Your task to perform on an android device: turn off notifications settings in the gmail app Image 0: 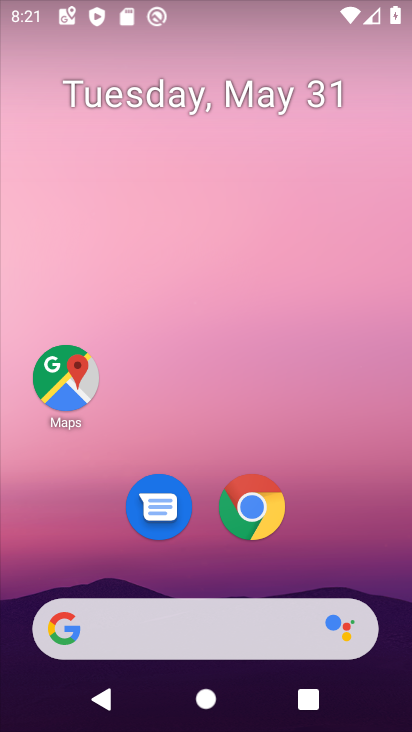
Step 0: drag from (327, 535) to (225, 189)
Your task to perform on an android device: turn off notifications settings in the gmail app Image 1: 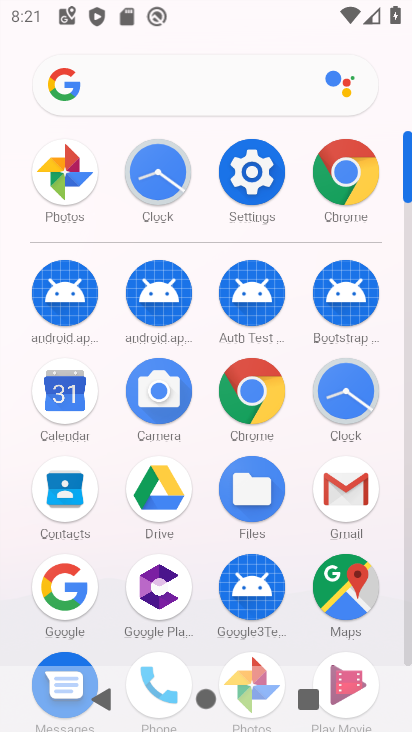
Step 1: click (357, 505)
Your task to perform on an android device: turn off notifications settings in the gmail app Image 2: 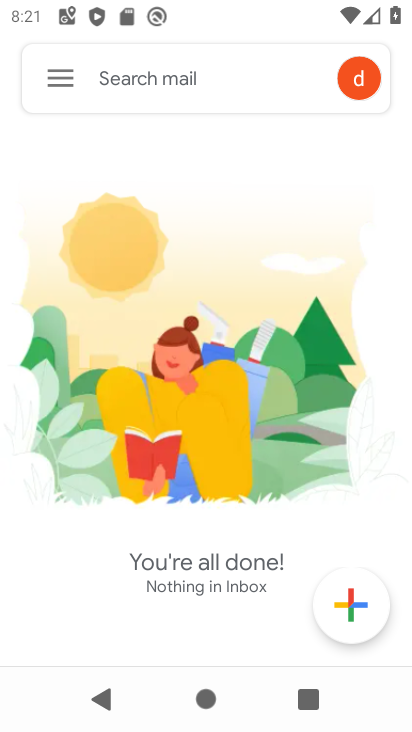
Step 2: click (70, 79)
Your task to perform on an android device: turn off notifications settings in the gmail app Image 3: 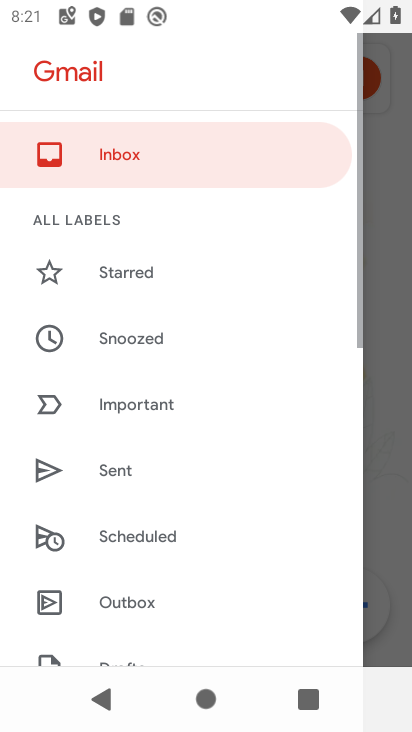
Step 3: drag from (189, 540) to (238, 53)
Your task to perform on an android device: turn off notifications settings in the gmail app Image 4: 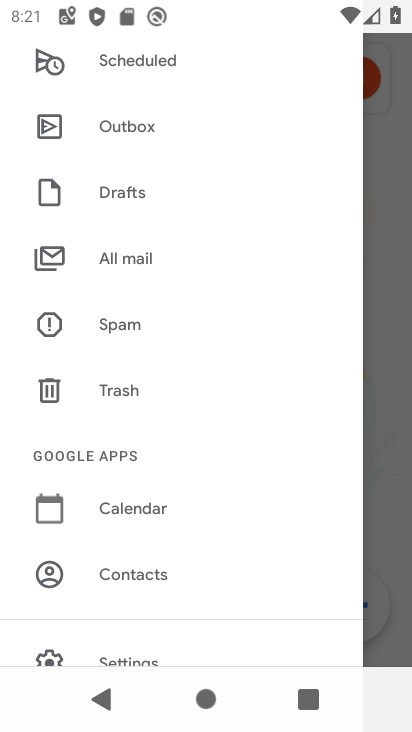
Step 4: drag from (155, 570) to (143, 237)
Your task to perform on an android device: turn off notifications settings in the gmail app Image 5: 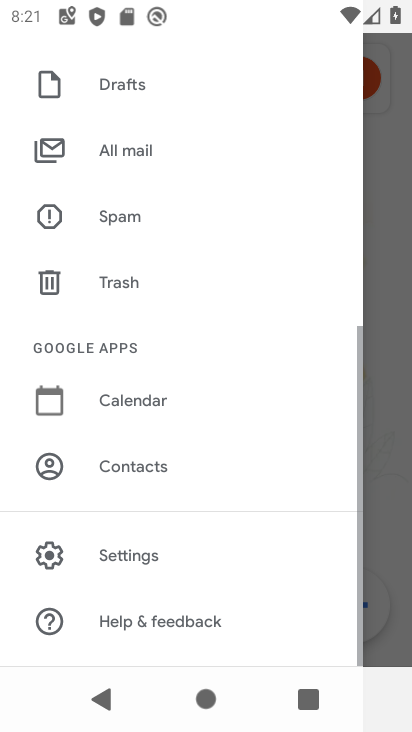
Step 5: click (118, 545)
Your task to perform on an android device: turn off notifications settings in the gmail app Image 6: 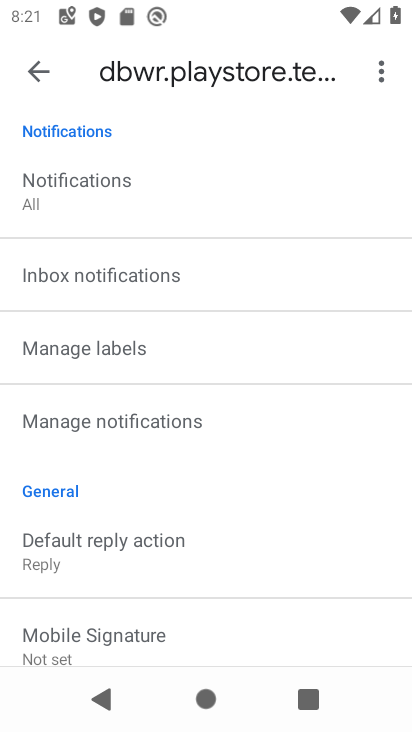
Step 6: click (144, 419)
Your task to perform on an android device: turn off notifications settings in the gmail app Image 7: 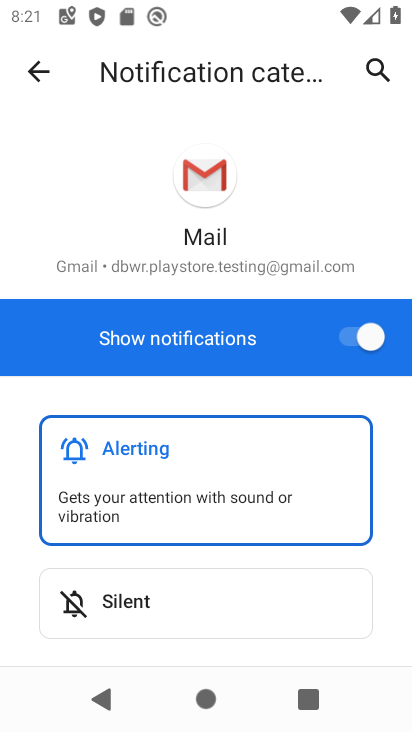
Step 7: click (379, 339)
Your task to perform on an android device: turn off notifications settings in the gmail app Image 8: 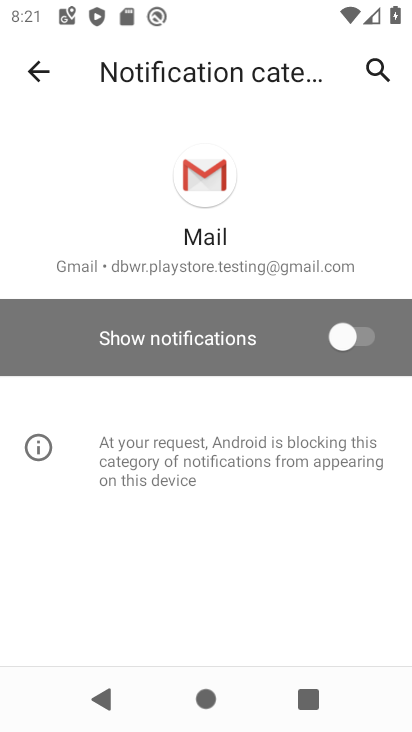
Step 8: task complete